Your task to perform on an android device: turn on location history Image 0: 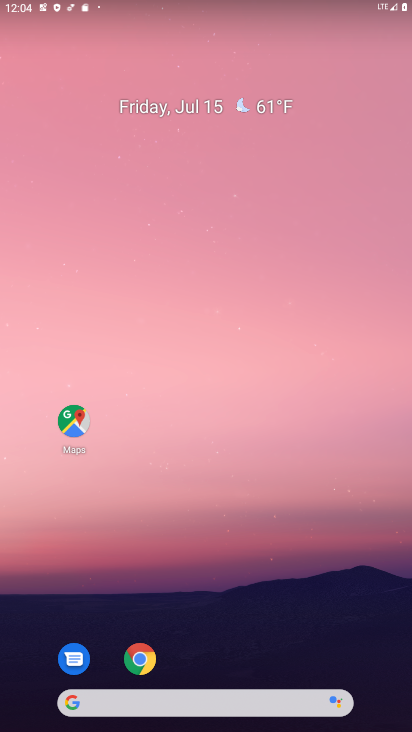
Step 0: drag from (213, 706) to (279, 61)
Your task to perform on an android device: turn on location history Image 1: 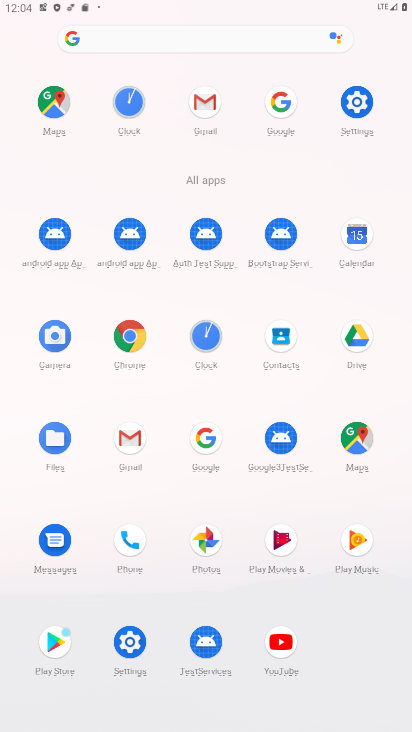
Step 1: click (357, 103)
Your task to perform on an android device: turn on location history Image 2: 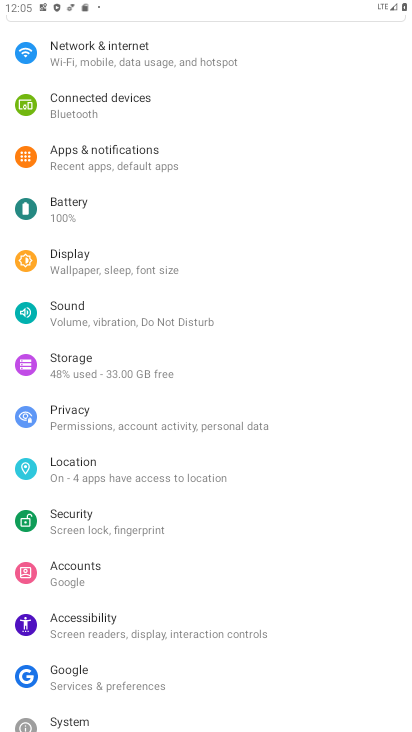
Step 2: click (97, 467)
Your task to perform on an android device: turn on location history Image 3: 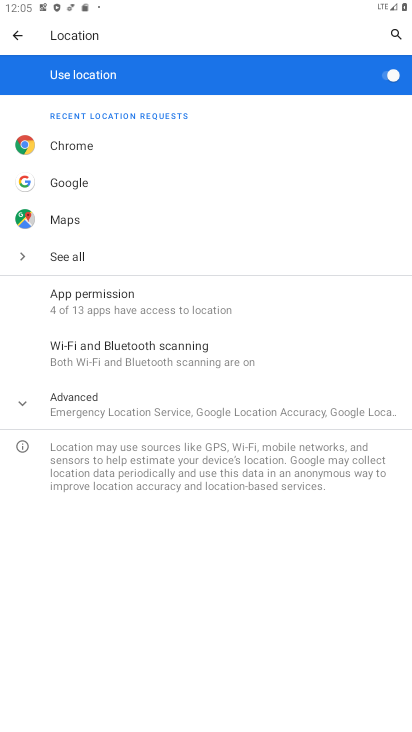
Step 3: click (135, 405)
Your task to perform on an android device: turn on location history Image 4: 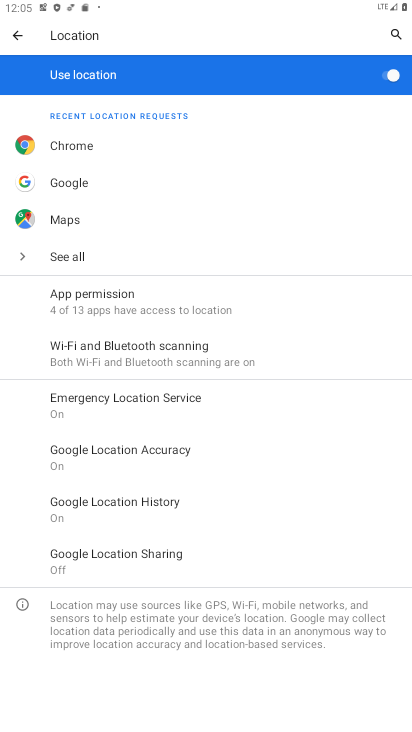
Step 4: task complete